Your task to perform on an android device: turn pop-ups off in chrome Image 0: 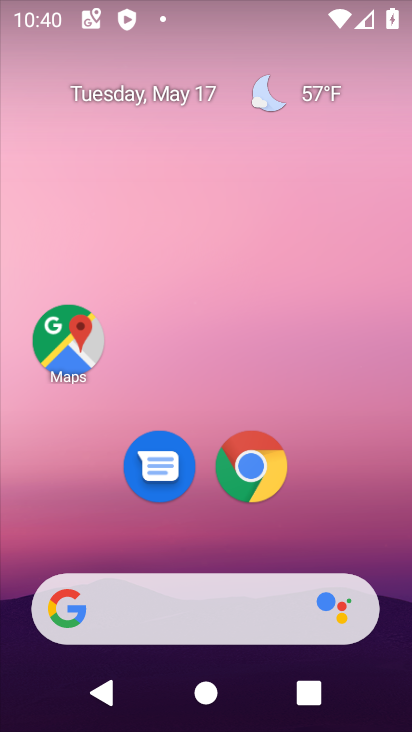
Step 0: drag from (223, 541) to (160, 14)
Your task to perform on an android device: turn pop-ups off in chrome Image 1: 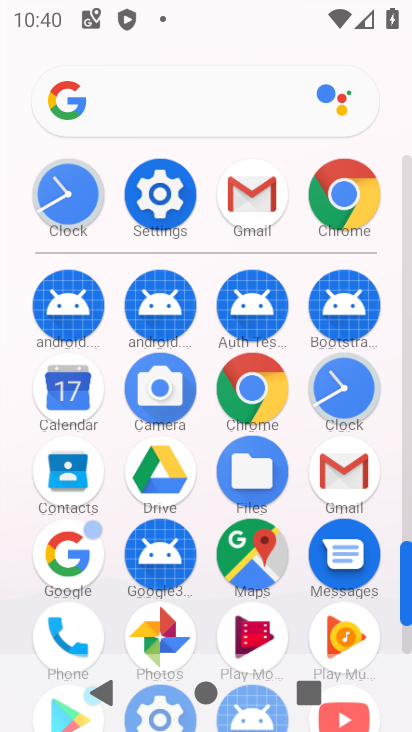
Step 1: click (363, 192)
Your task to perform on an android device: turn pop-ups off in chrome Image 2: 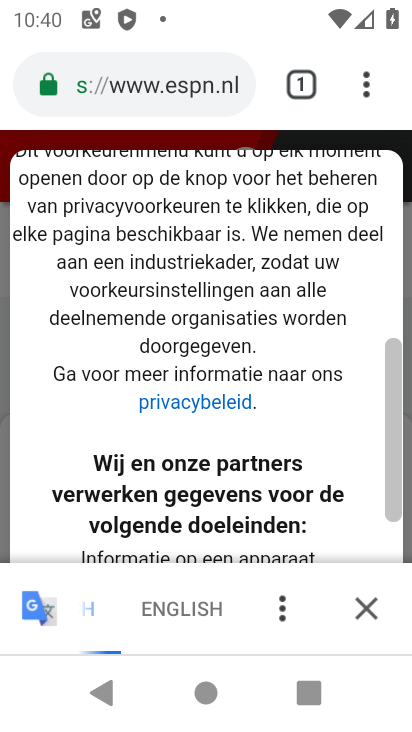
Step 2: drag from (273, 511) to (169, 169)
Your task to perform on an android device: turn pop-ups off in chrome Image 3: 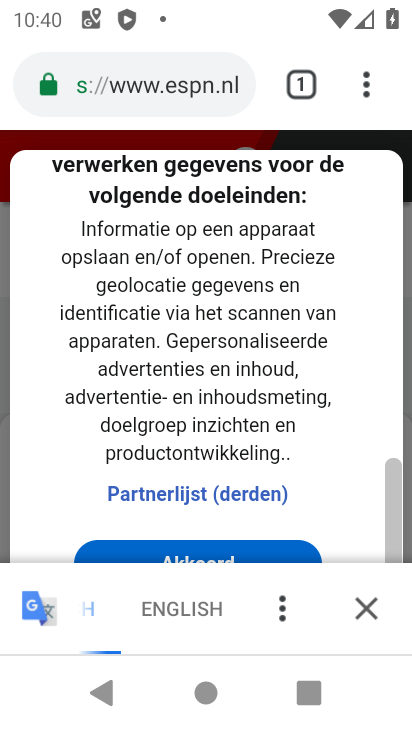
Step 3: click (357, 87)
Your task to perform on an android device: turn pop-ups off in chrome Image 4: 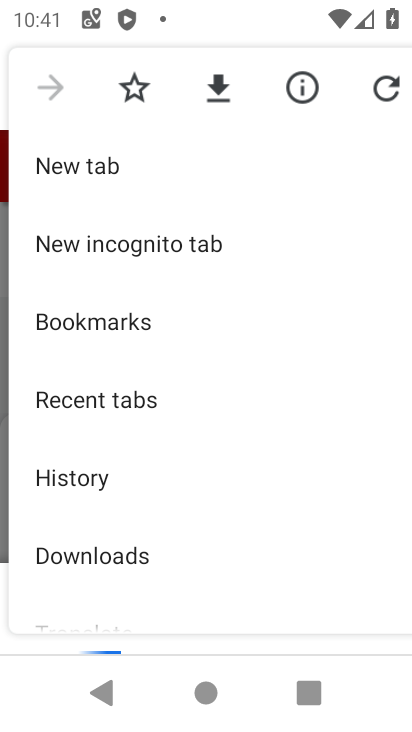
Step 4: drag from (215, 463) to (177, 66)
Your task to perform on an android device: turn pop-ups off in chrome Image 5: 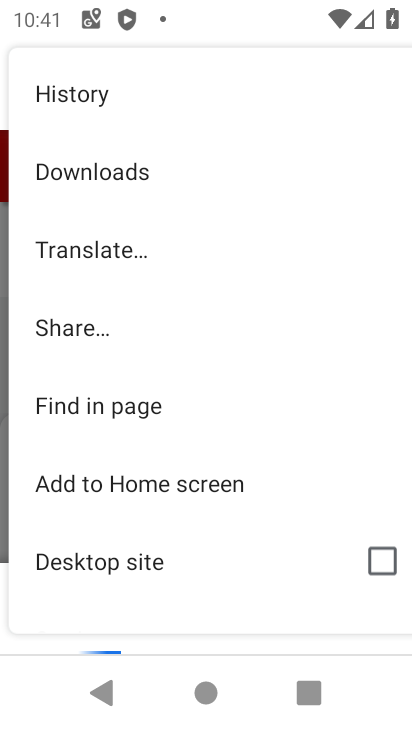
Step 5: drag from (196, 469) to (144, 46)
Your task to perform on an android device: turn pop-ups off in chrome Image 6: 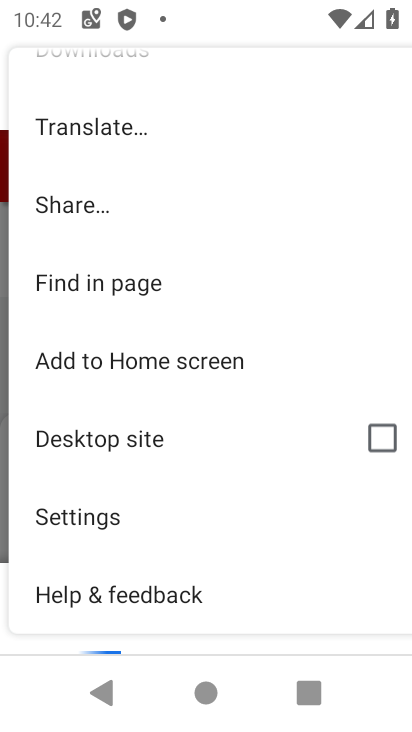
Step 6: drag from (190, 506) to (159, 202)
Your task to perform on an android device: turn pop-ups off in chrome Image 7: 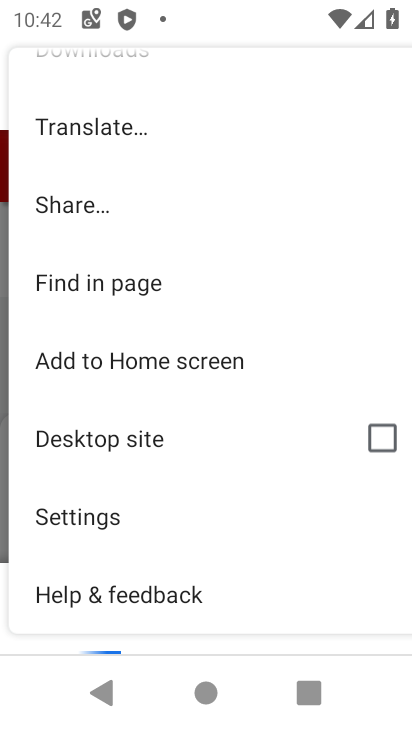
Step 7: click (87, 512)
Your task to perform on an android device: turn pop-ups off in chrome Image 8: 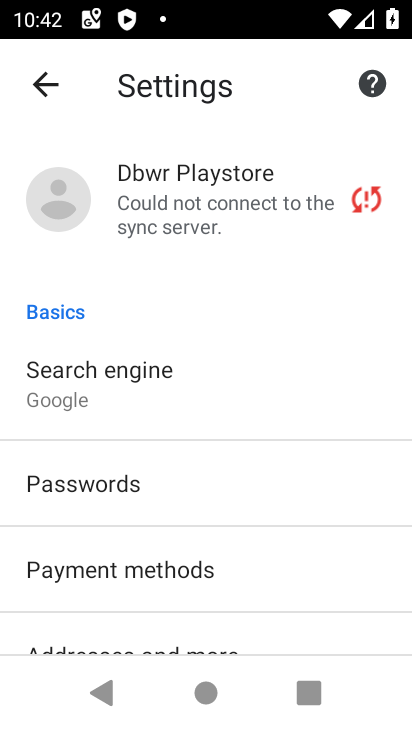
Step 8: drag from (238, 516) to (168, 79)
Your task to perform on an android device: turn pop-ups off in chrome Image 9: 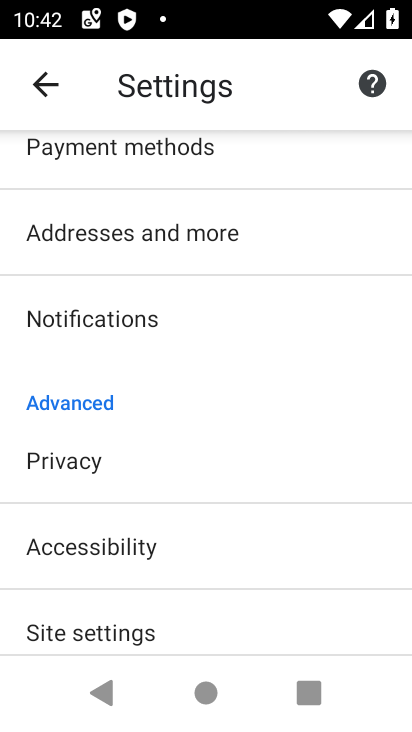
Step 9: drag from (120, 599) to (91, 164)
Your task to perform on an android device: turn pop-ups off in chrome Image 10: 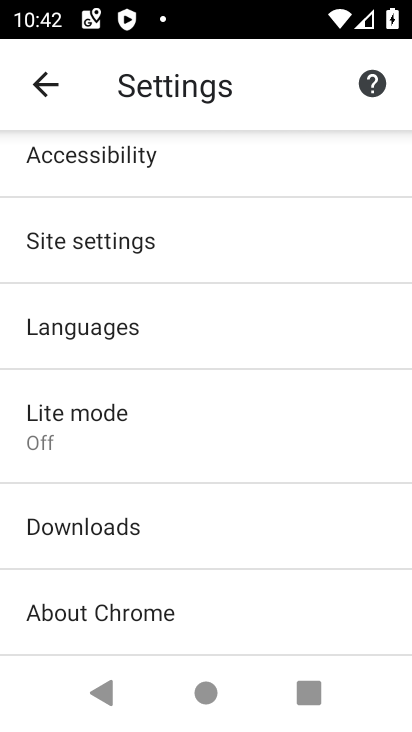
Step 10: click (91, 266)
Your task to perform on an android device: turn pop-ups off in chrome Image 11: 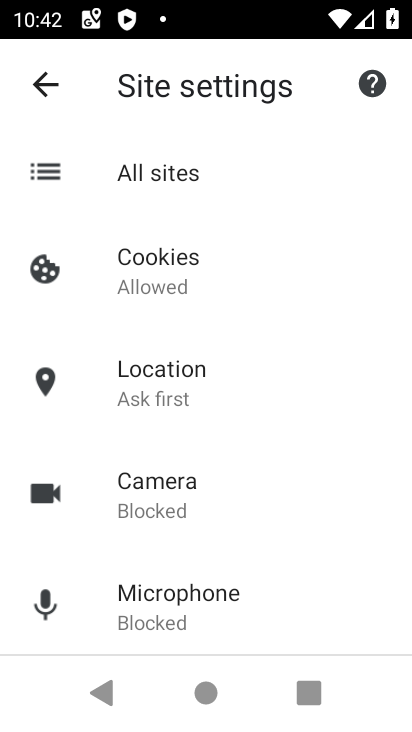
Step 11: drag from (238, 505) to (229, 165)
Your task to perform on an android device: turn pop-ups off in chrome Image 12: 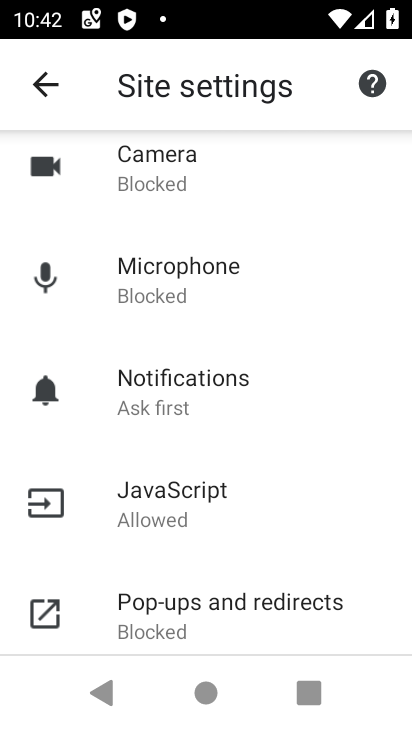
Step 12: drag from (221, 454) to (193, 221)
Your task to perform on an android device: turn pop-ups off in chrome Image 13: 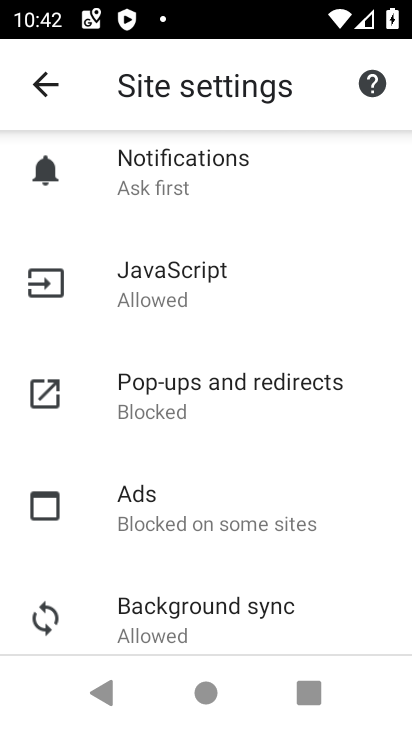
Step 13: click (146, 382)
Your task to perform on an android device: turn pop-ups off in chrome Image 14: 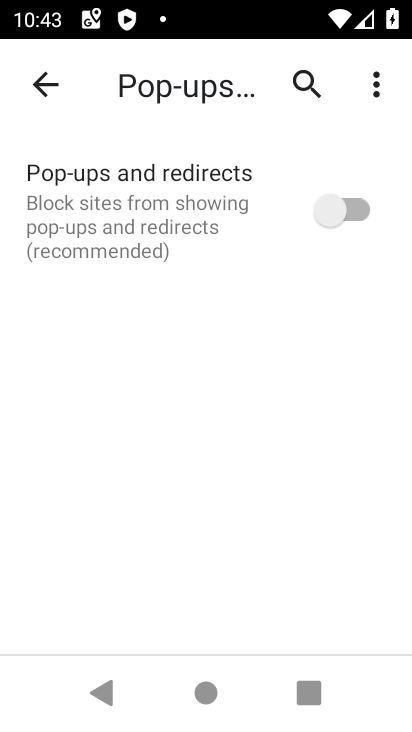
Step 14: task complete